Your task to perform on an android device: allow cookies in the chrome app Image 0: 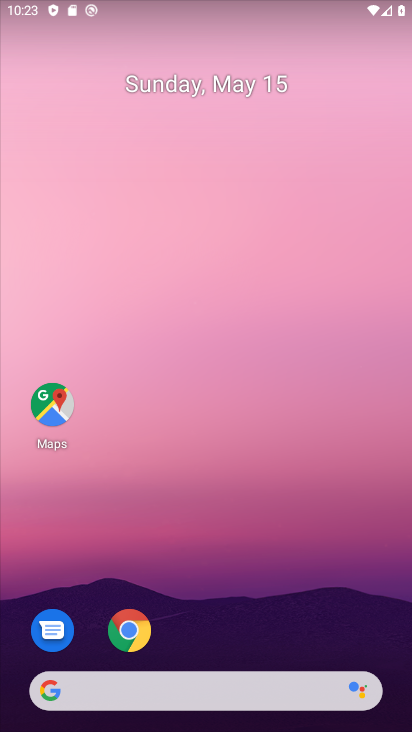
Step 0: click (139, 632)
Your task to perform on an android device: allow cookies in the chrome app Image 1: 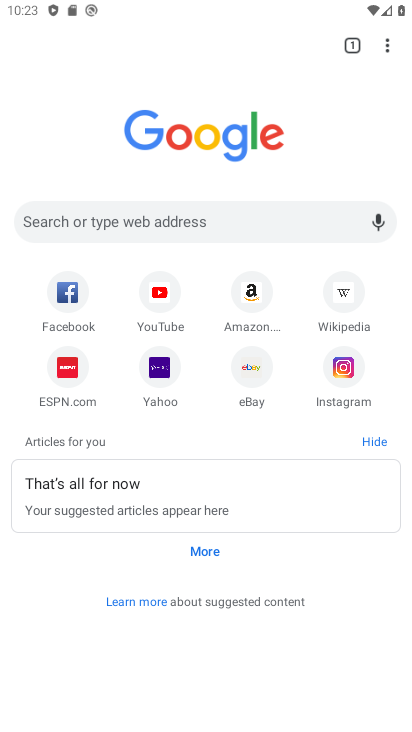
Step 1: drag from (385, 40) to (242, 384)
Your task to perform on an android device: allow cookies in the chrome app Image 2: 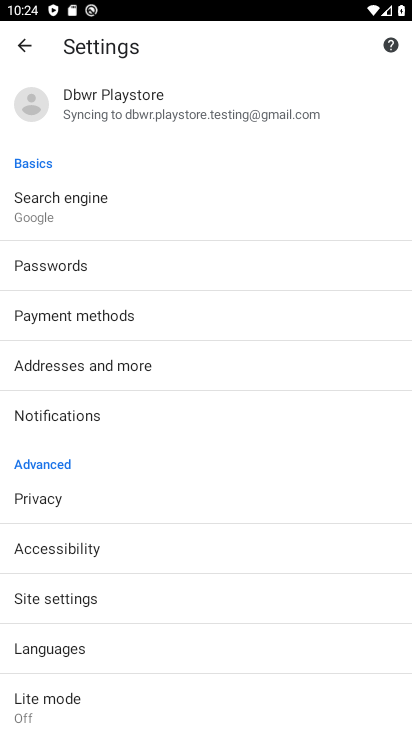
Step 2: click (95, 599)
Your task to perform on an android device: allow cookies in the chrome app Image 3: 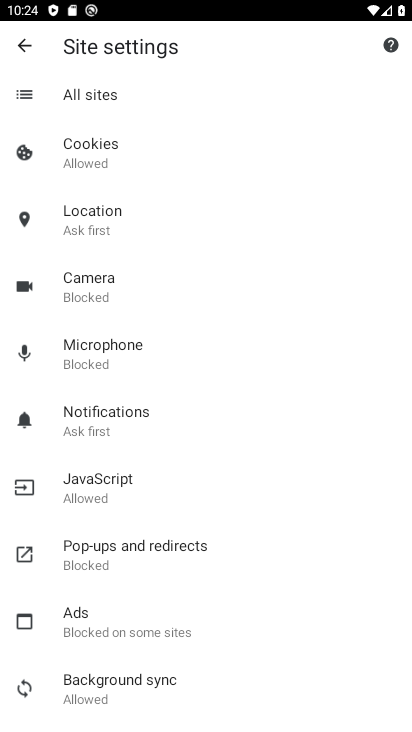
Step 3: click (165, 144)
Your task to perform on an android device: allow cookies in the chrome app Image 4: 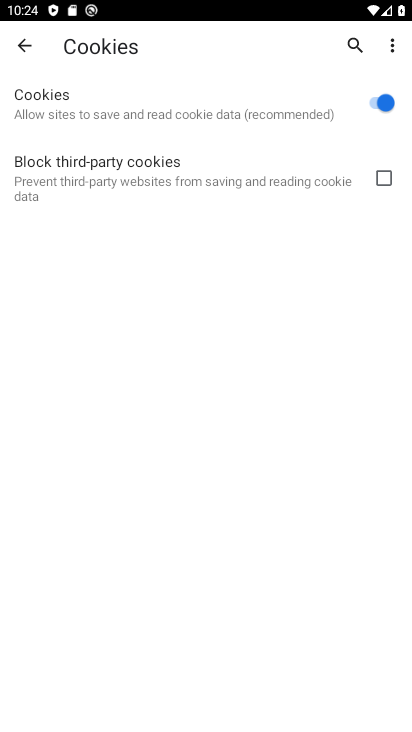
Step 4: task complete